Your task to perform on an android device: install app "Etsy: Buy & Sell Unique Items" Image 0: 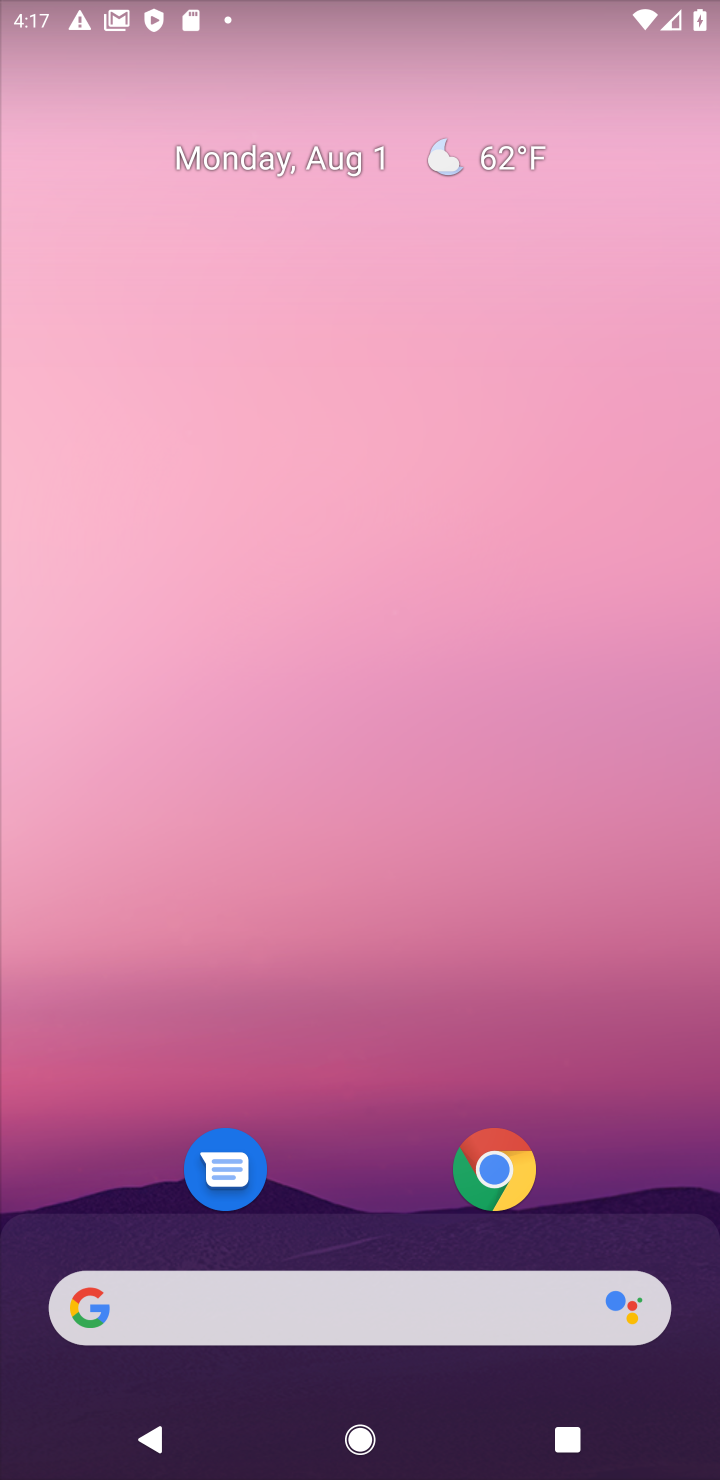
Step 0: drag from (707, 1155) to (559, 504)
Your task to perform on an android device: install app "Etsy: Buy & Sell Unique Items" Image 1: 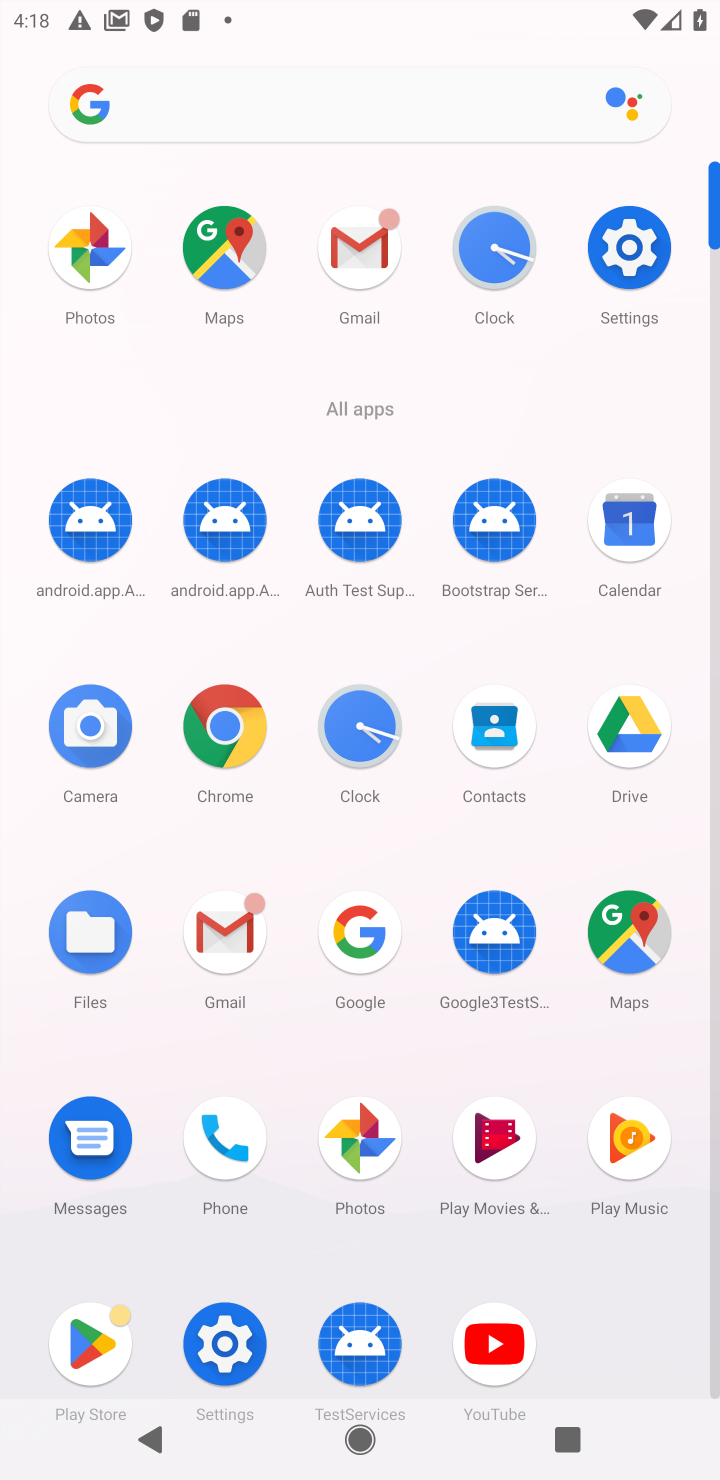
Step 1: click (82, 1358)
Your task to perform on an android device: install app "Etsy: Buy & Sell Unique Items" Image 2: 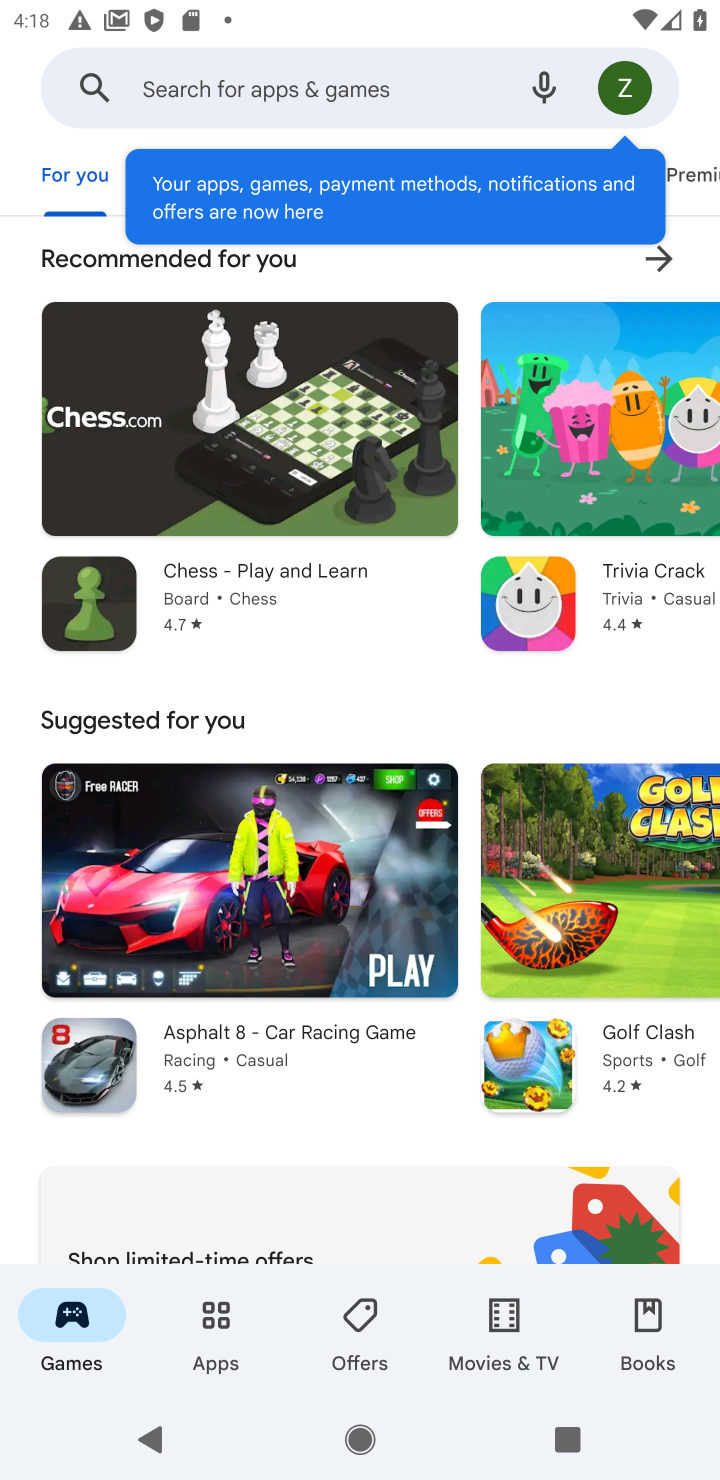
Step 2: click (268, 106)
Your task to perform on an android device: install app "Etsy: Buy & Sell Unique Items" Image 3: 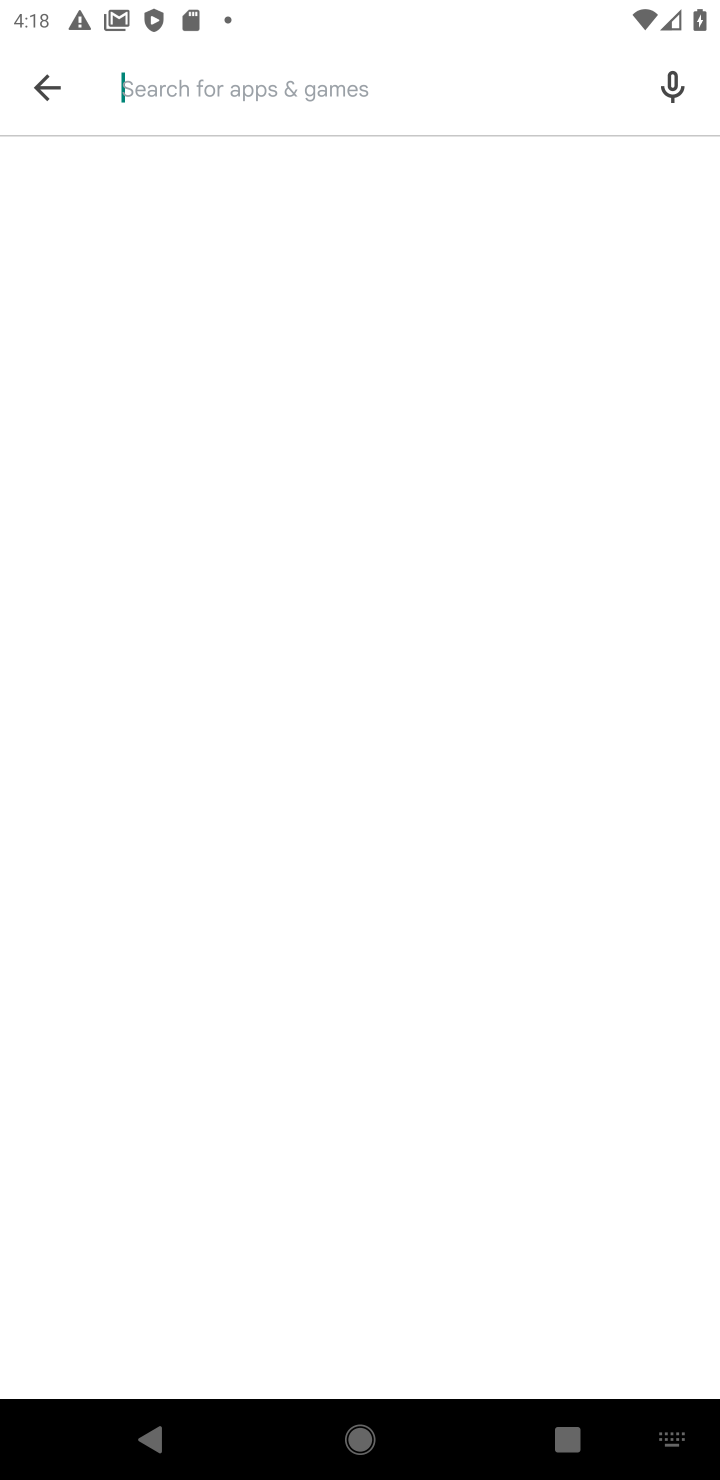
Step 3: type "etsy: buy & sell"
Your task to perform on an android device: install app "Etsy: Buy & Sell Unique Items" Image 4: 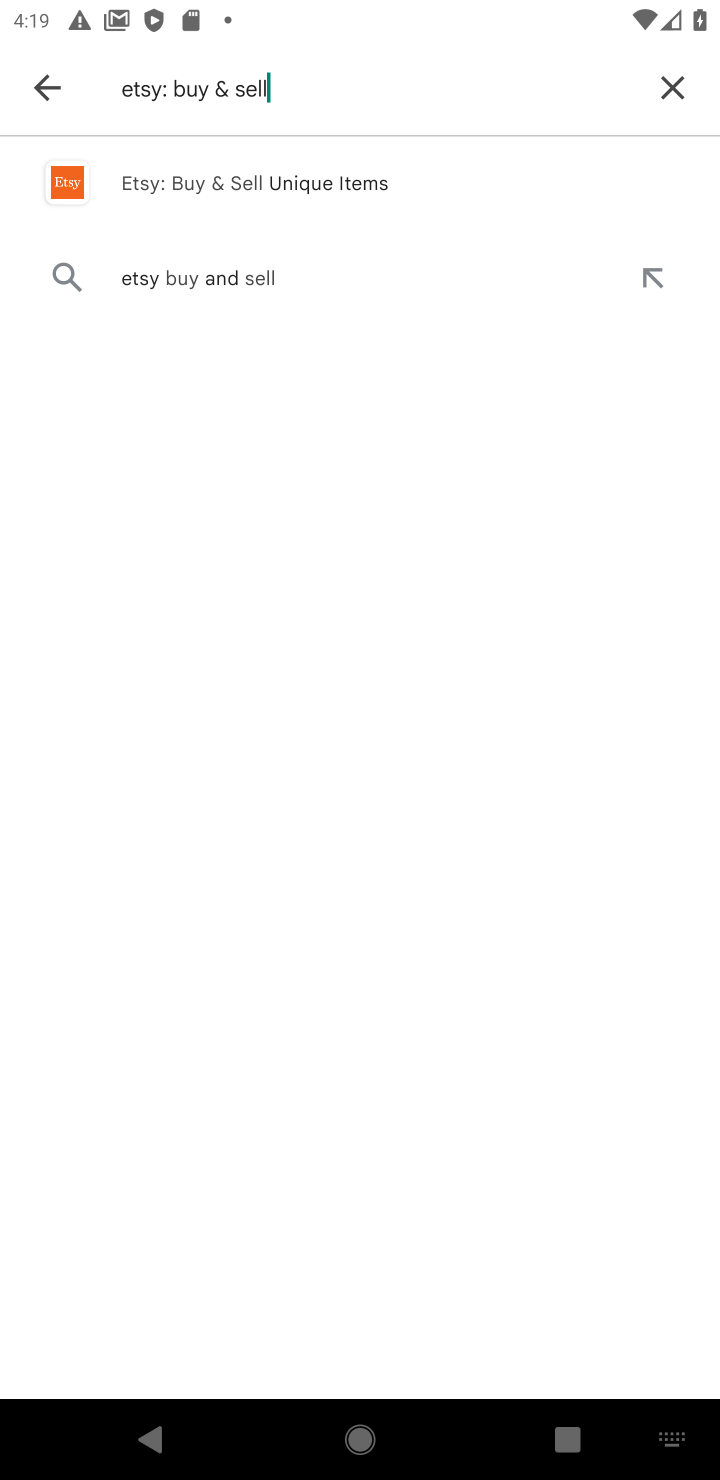
Step 4: click (139, 183)
Your task to perform on an android device: install app "Etsy: Buy & Sell Unique Items" Image 5: 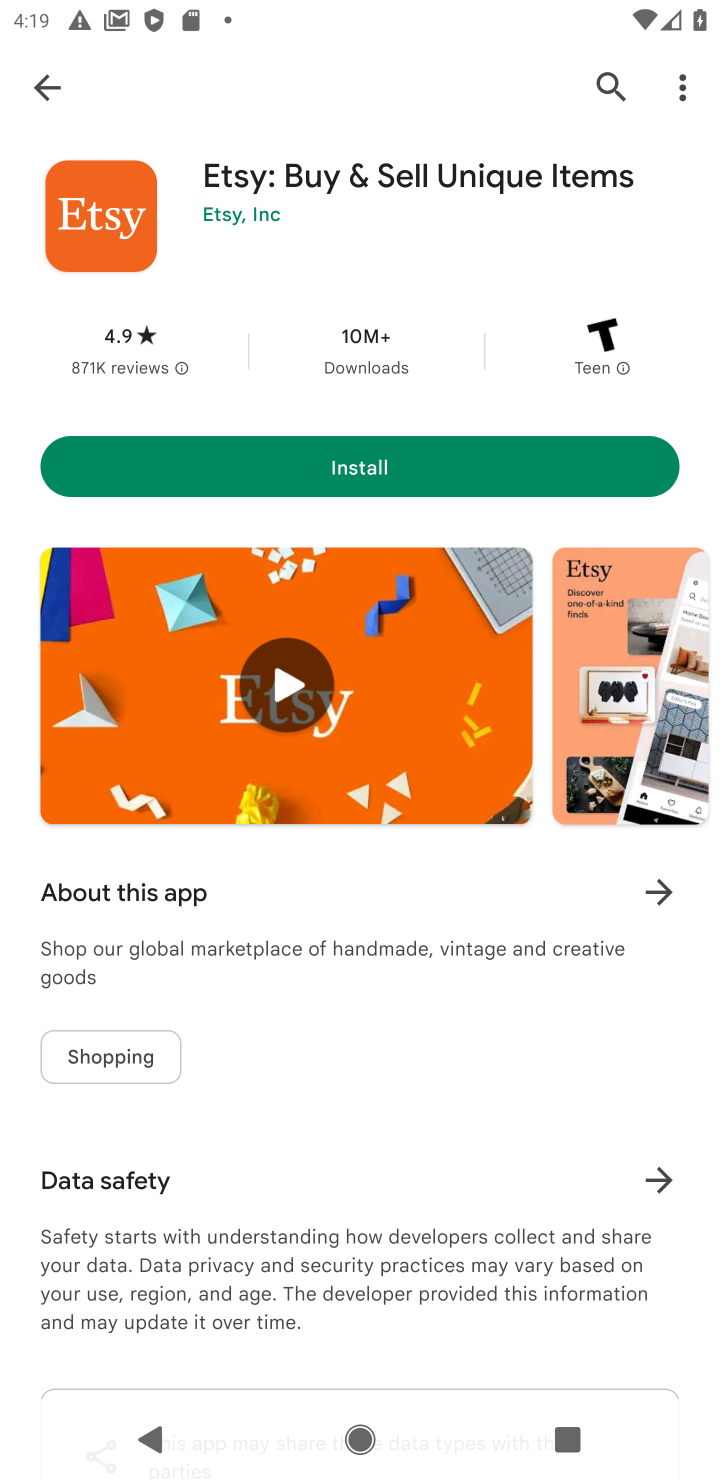
Step 5: click (396, 476)
Your task to perform on an android device: install app "Etsy: Buy & Sell Unique Items" Image 6: 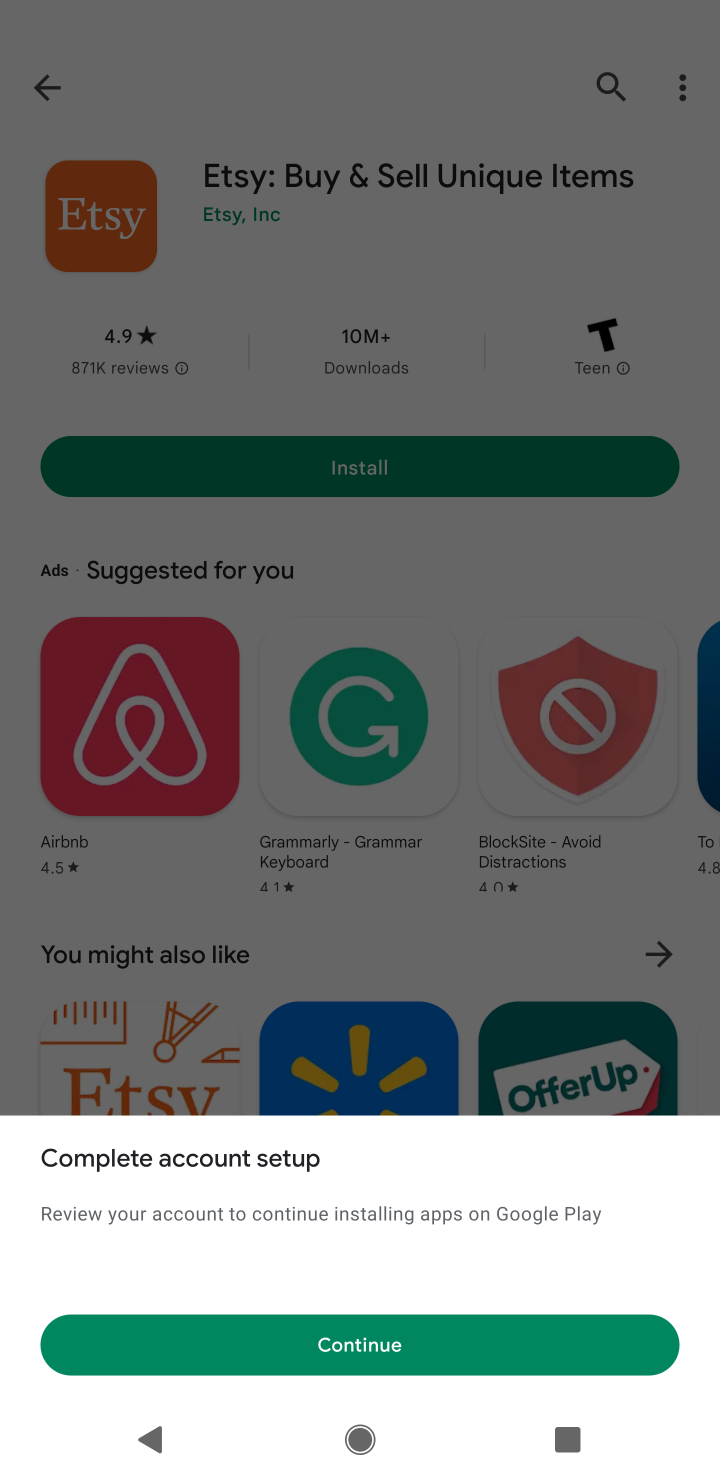
Step 6: click (316, 1334)
Your task to perform on an android device: install app "Etsy: Buy & Sell Unique Items" Image 7: 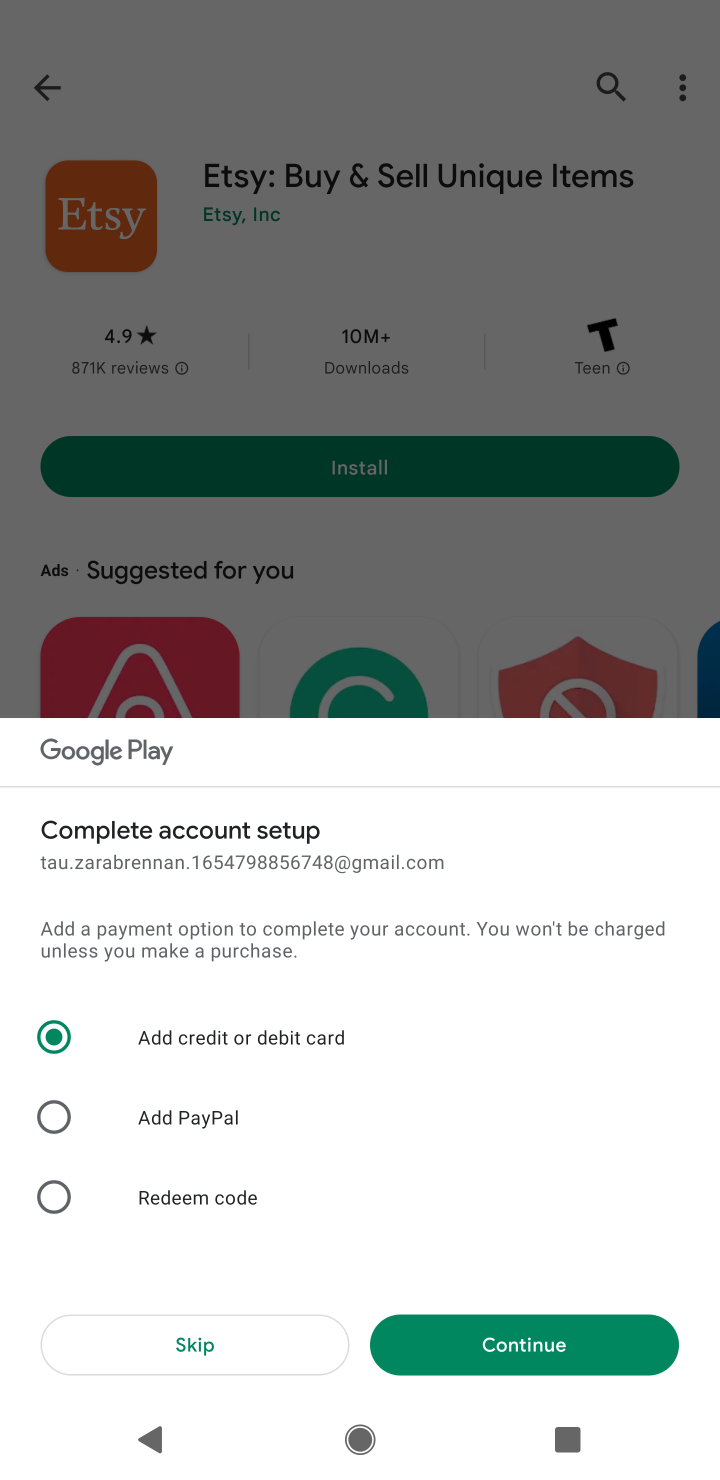
Step 7: click (189, 1348)
Your task to perform on an android device: install app "Etsy: Buy & Sell Unique Items" Image 8: 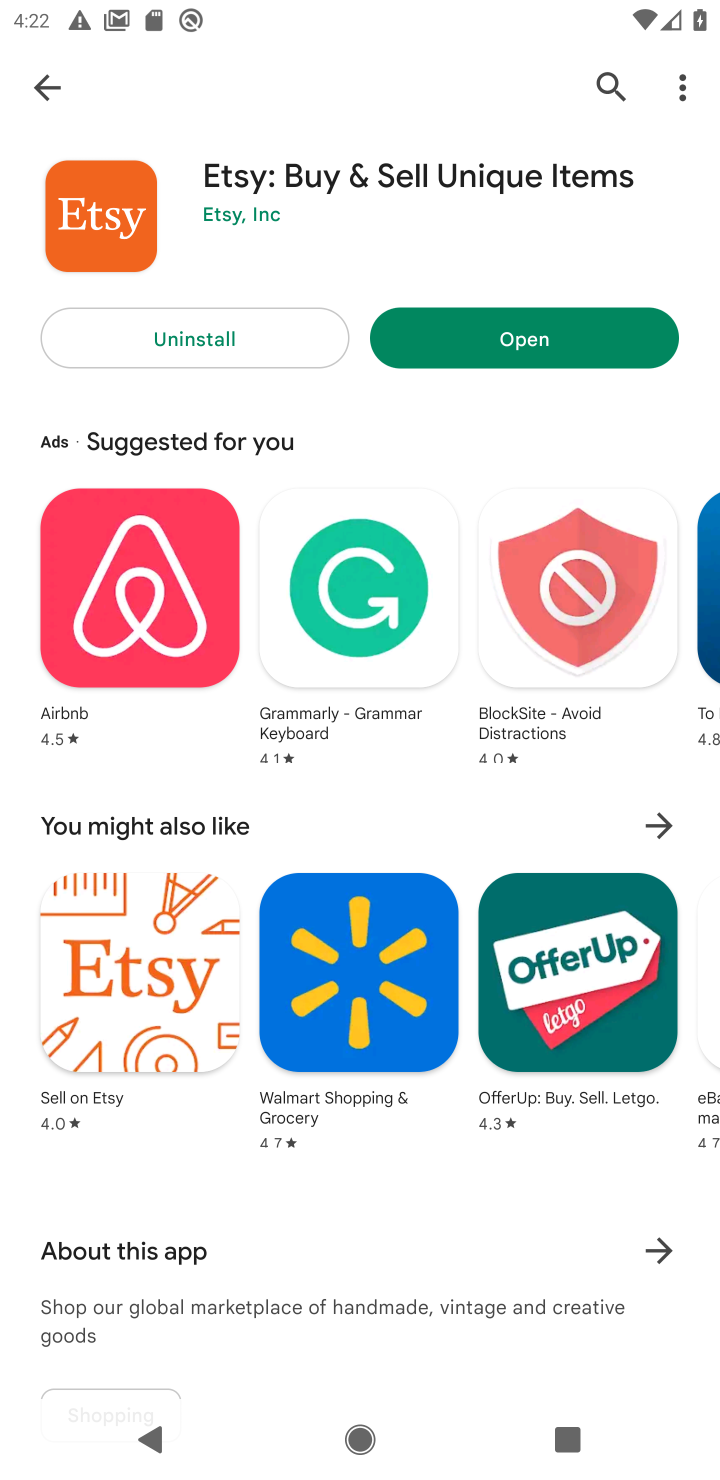
Step 8: task complete